Your task to perform on an android device: open a bookmark in the chrome app Image 0: 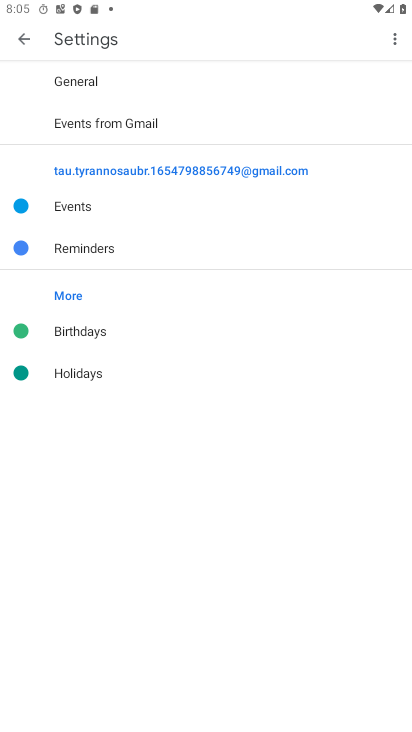
Step 0: press home button
Your task to perform on an android device: open a bookmark in the chrome app Image 1: 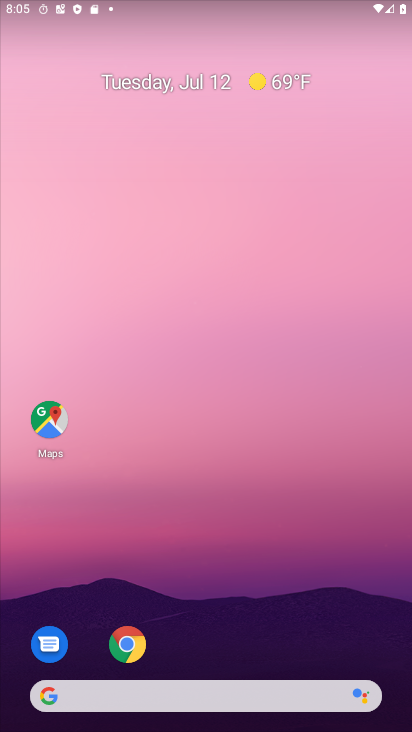
Step 1: click (127, 637)
Your task to perform on an android device: open a bookmark in the chrome app Image 2: 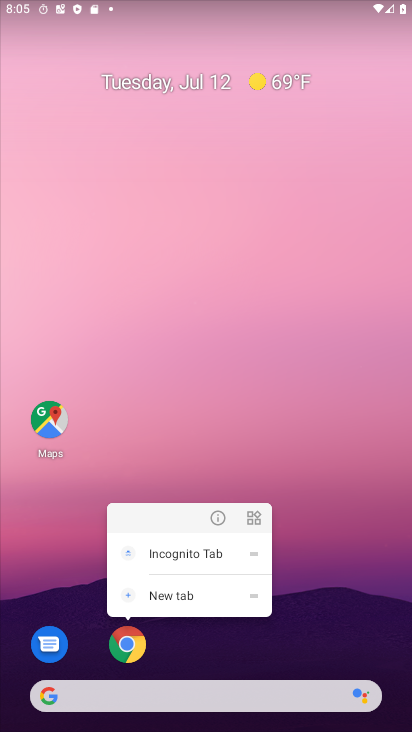
Step 2: click (124, 638)
Your task to perform on an android device: open a bookmark in the chrome app Image 3: 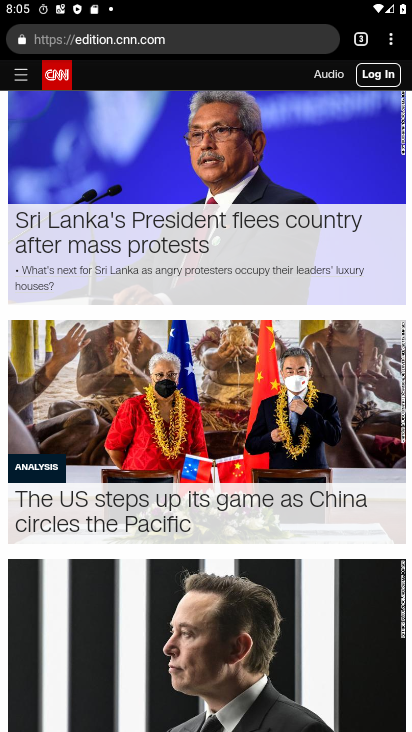
Step 3: click (362, 36)
Your task to perform on an android device: open a bookmark in the chrome app Image 4: 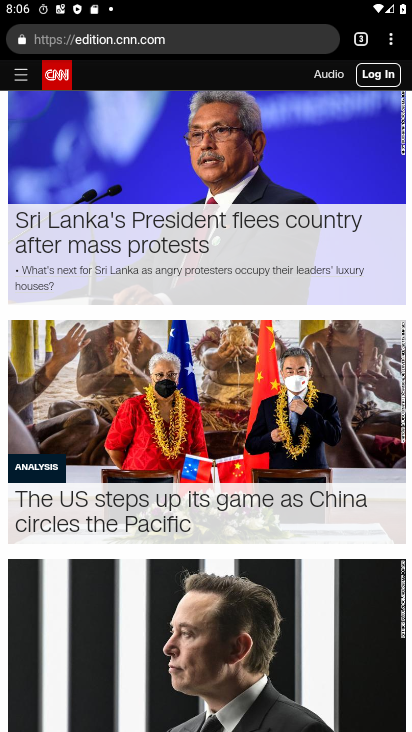
Step 4: click (359, 36)
Your task to perform on an android device: open a bookmark in the chrome app Image 5: 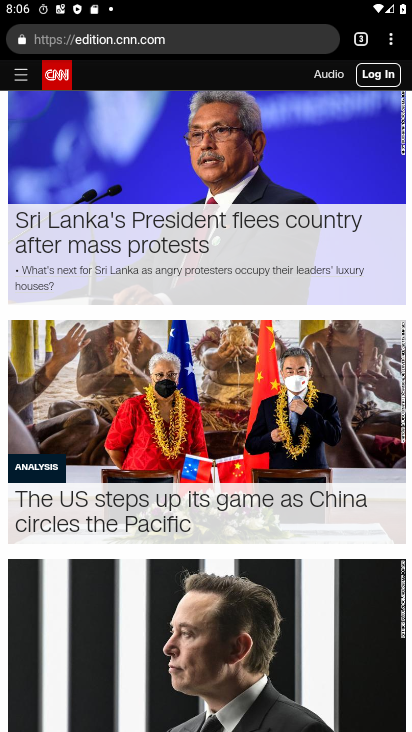
Step 5: click (360, 39)
Your task to perform on an android device: open a bookmark in the chrome app Image 6: 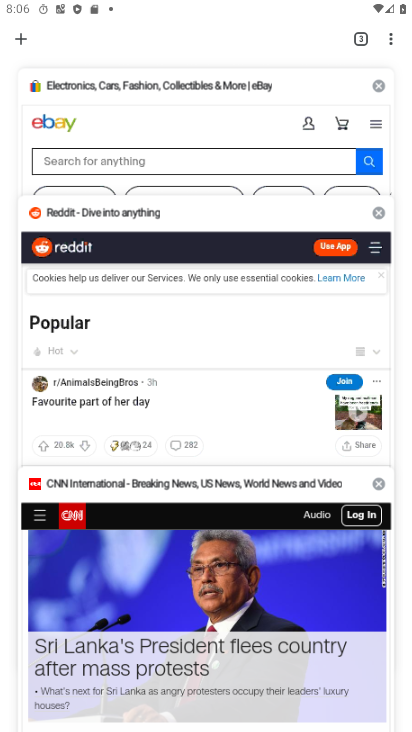
Step 6: click (214, 560)
Your task to perform on an android device: open a bookmark in the chrome app Image 7: 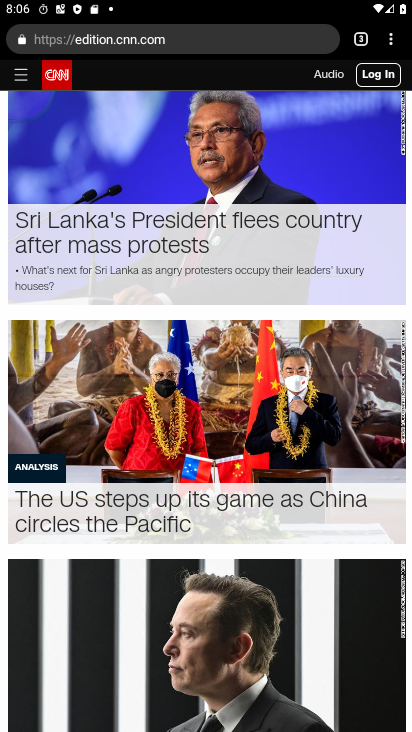
Step 7: click (390, 41)
Your task to perform on an android device: open a bookmark in the chrome app Image 8: 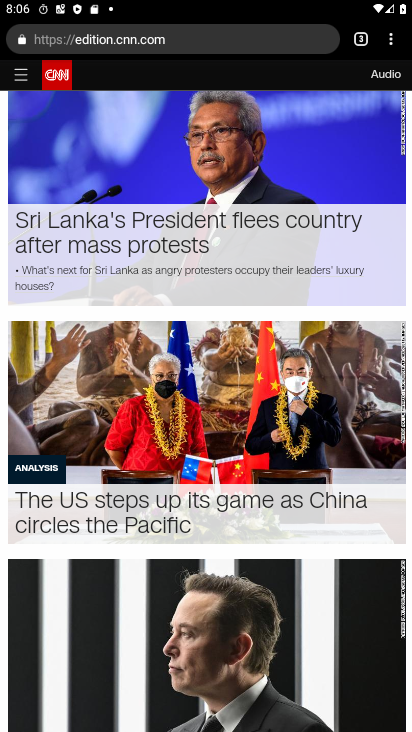
Step 8: click (390, 41)
Your task to perform on an android device: open a bookmark in the chrome app Image 9: 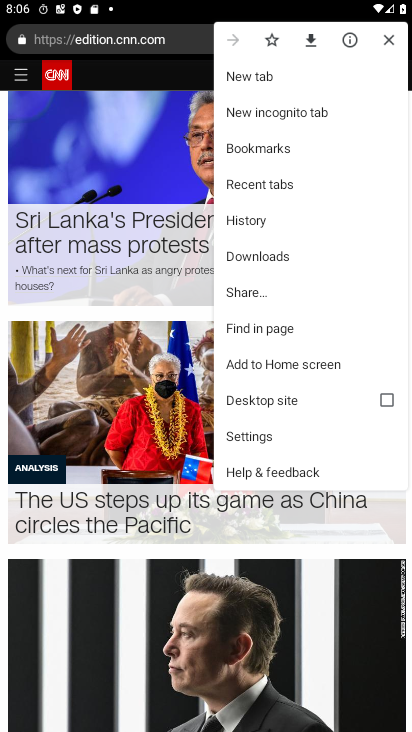
Step 9: click (288, 148)
Your task to perform on an android device: open a bookmark in the chrome app Image 10: 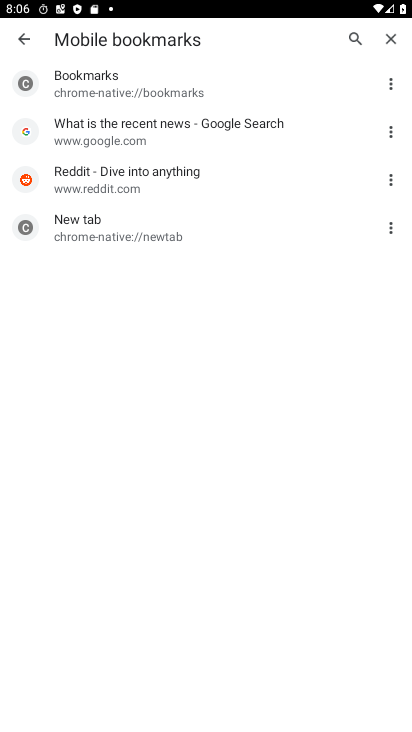
Step 10: click (139, 177)
Your task to perform on an android device: open a bookmark in the chrome app Image 11: 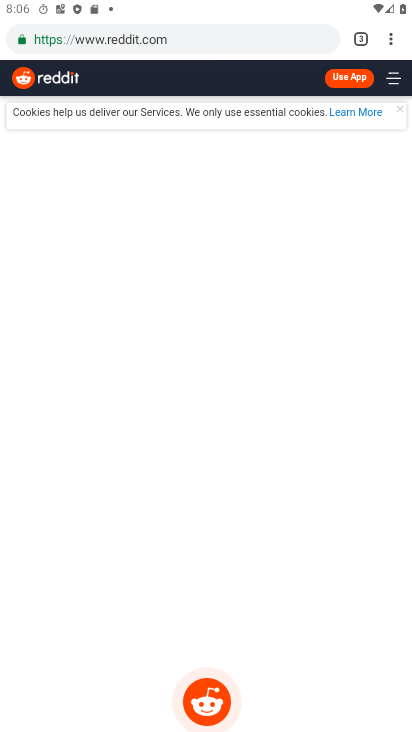
Step 11: task complete